Your task to perform on an android device: allow cookies in the chrome app Image 0: 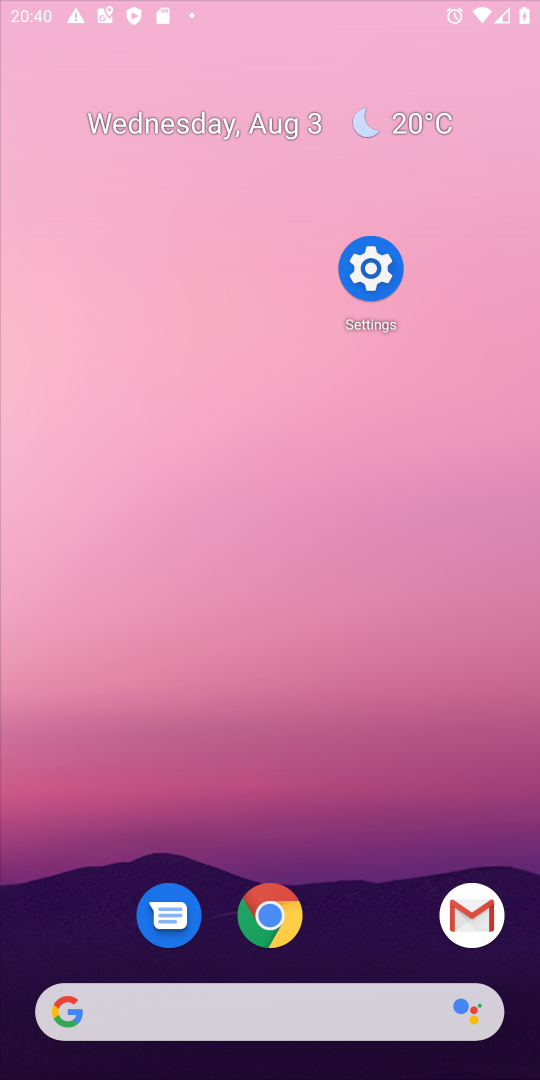
Step 0: press home button
Your task to perform on an android device: allow cookies in the chrome app Image 1: 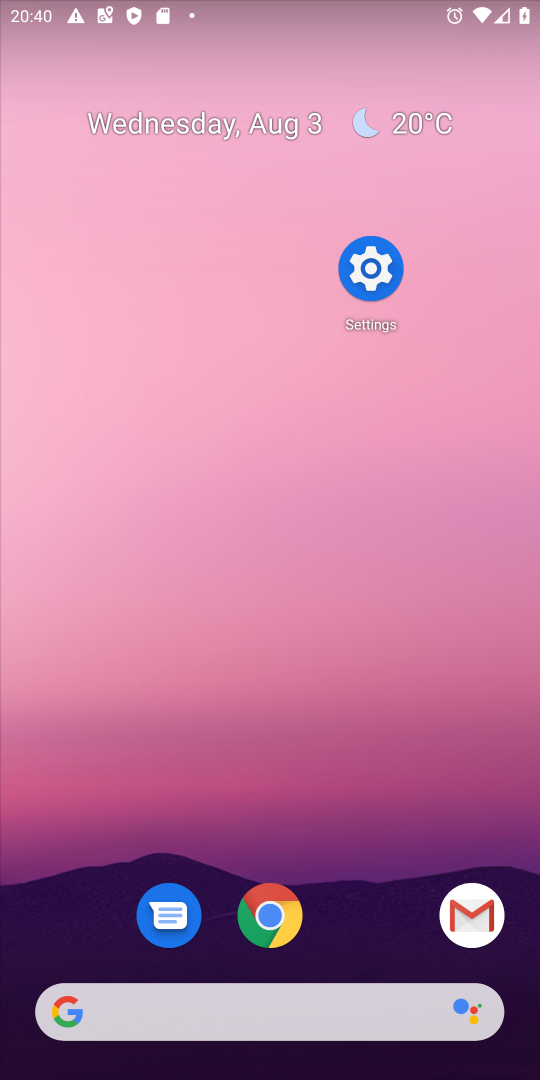
Step 1: drag from (382, 953) to (381, 238)
Your task to perform on an android device: allow cookies in the chrome app Image 2: 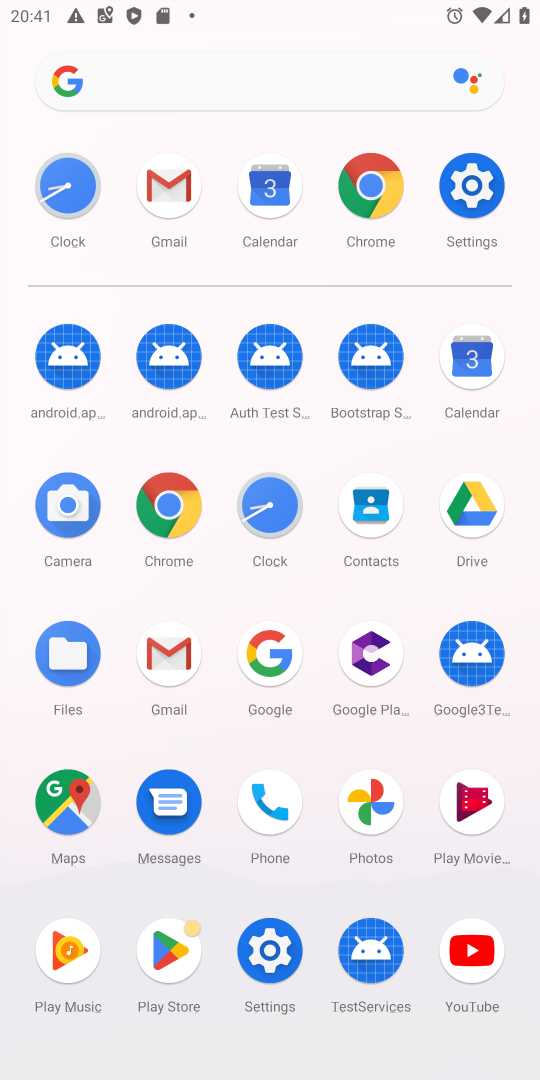
Step 2: click (179, 500)
Your task to perform on an android device: allow cookies in the chrome app Image 3: 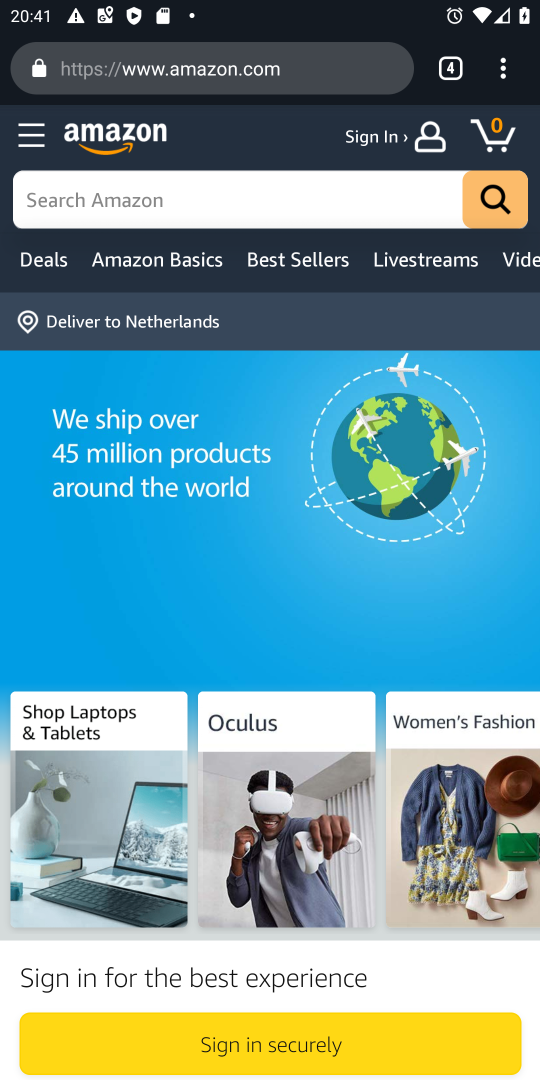
Step 3: click (500, 73)
Your task to perform on an android device: allow cookies in the chrome app Image 4: 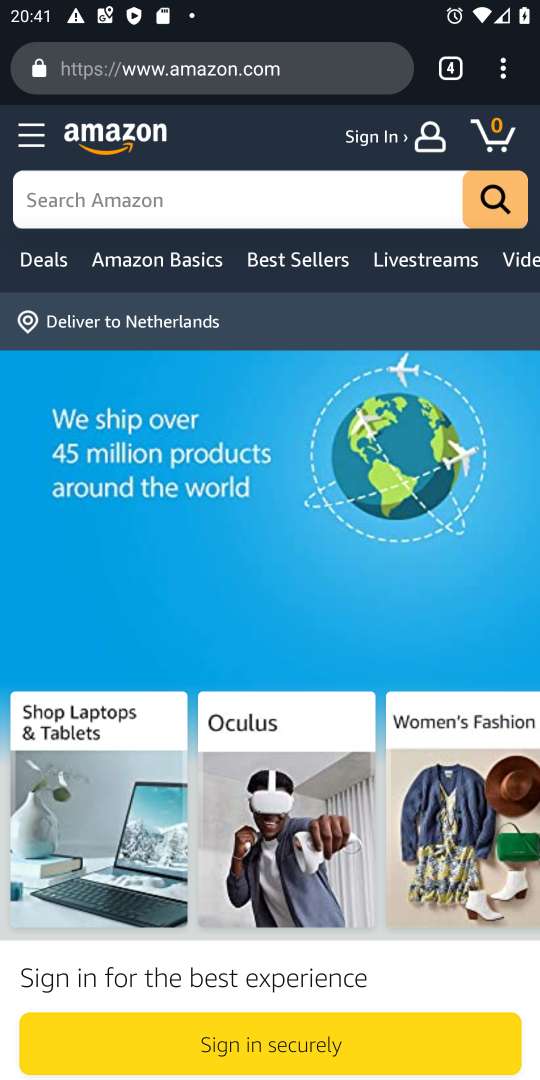
Step 4: click (496, 78)
Your task to perform on an android device: allow cookies in the chrome app Image 5: 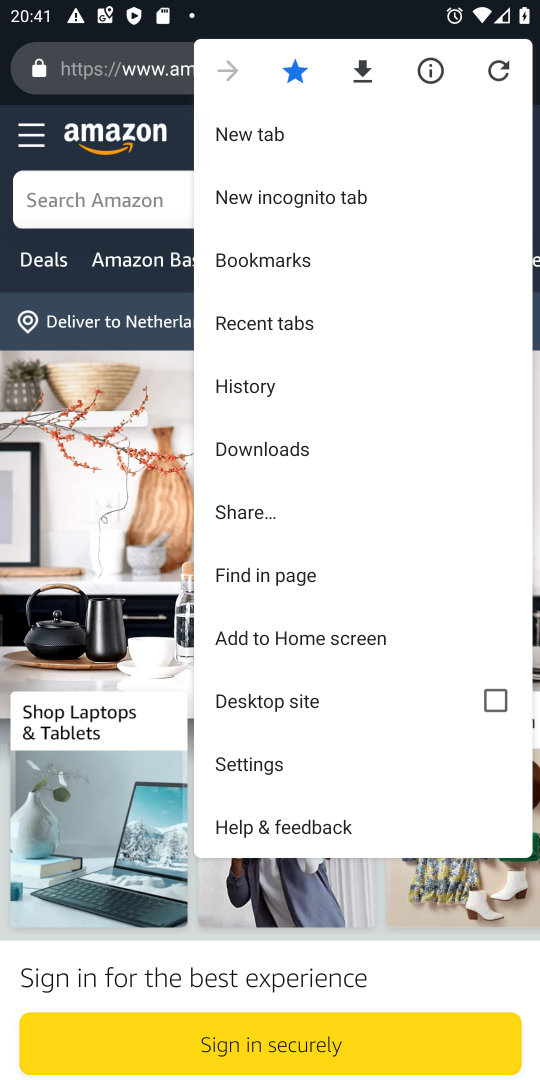
Step 5: click (254, 763)
Your task to perform on an android device: allow cookies in the chrome app Image 6: 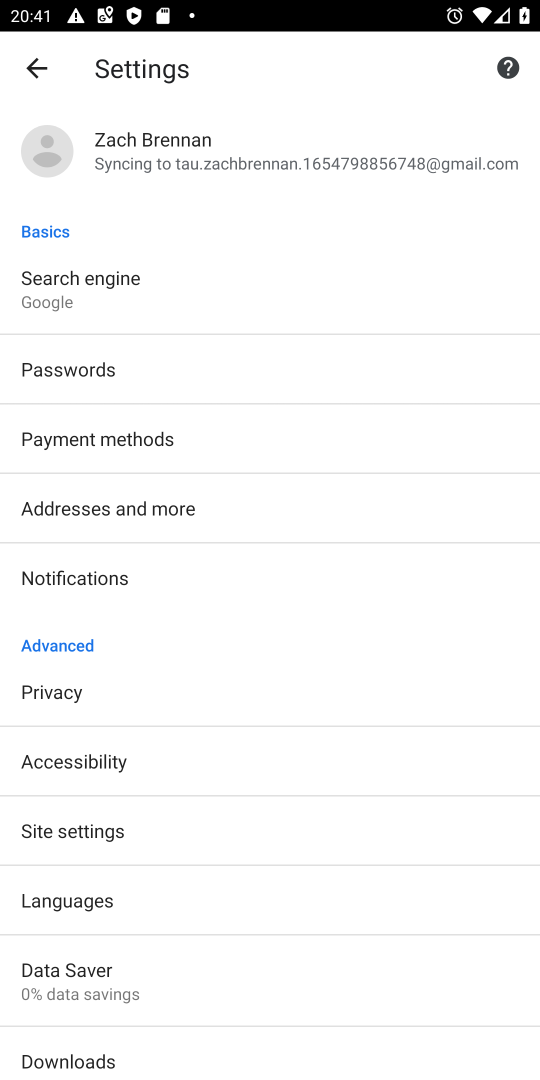
Step 6: click (90, 699)
Your task to perform on an android device: allow cookies in the chrome app Image 7: 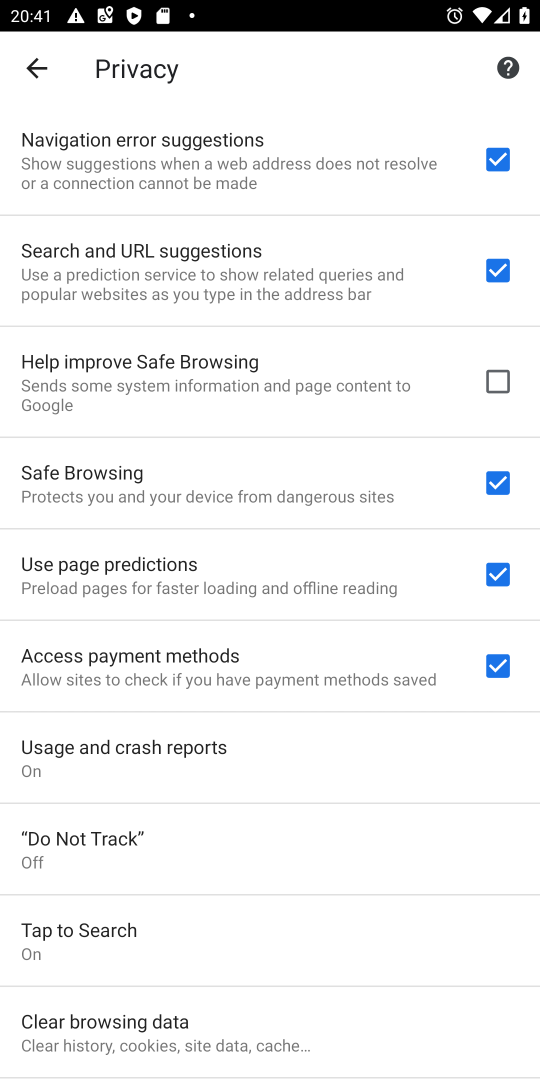
Step 7: click (135, 1033)
Your task to perform on an android device: allow cookies in the chrome app Image 8: 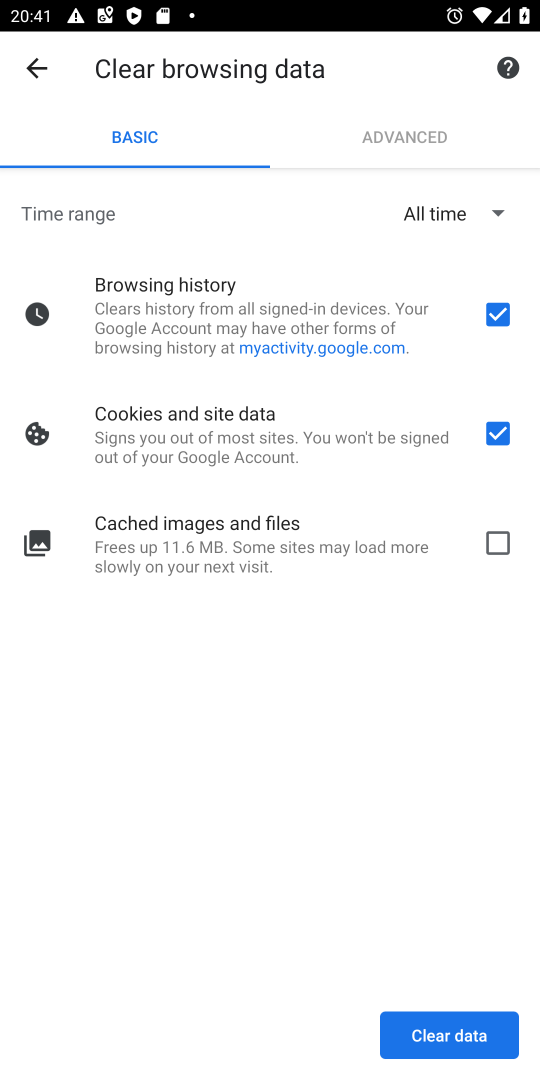
Step 8: click (419, 1034)
Your task to perform on an android device: allow cookies in the chrome app Image 9: 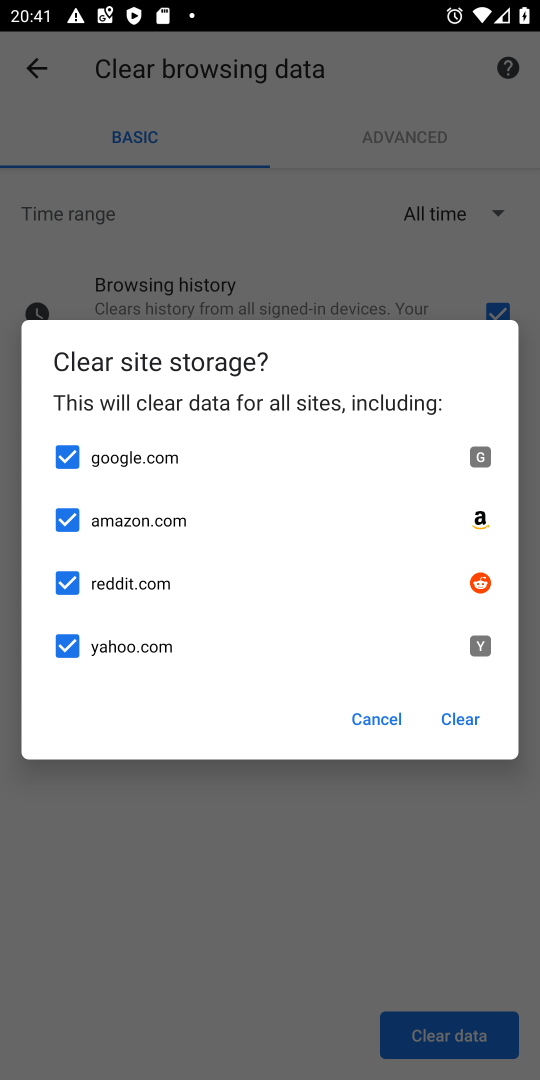
Step 9: click (437, 717)
Your task to perform on an android device: allow cookies in the chrome app Image 10: 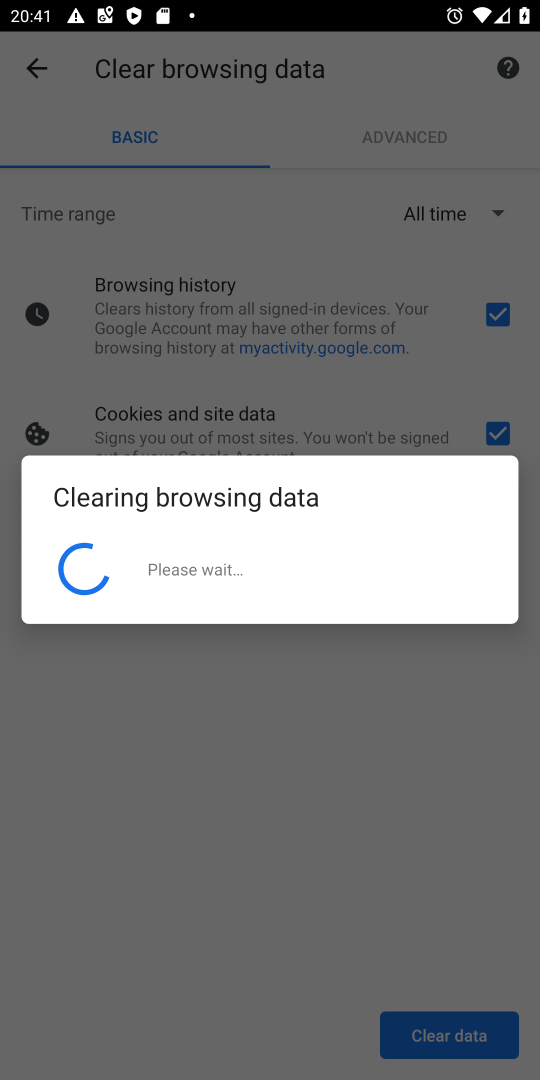
Step 10: task complete